Your task to perform on an android device: turn smart compose on in the gmail app Image 0: 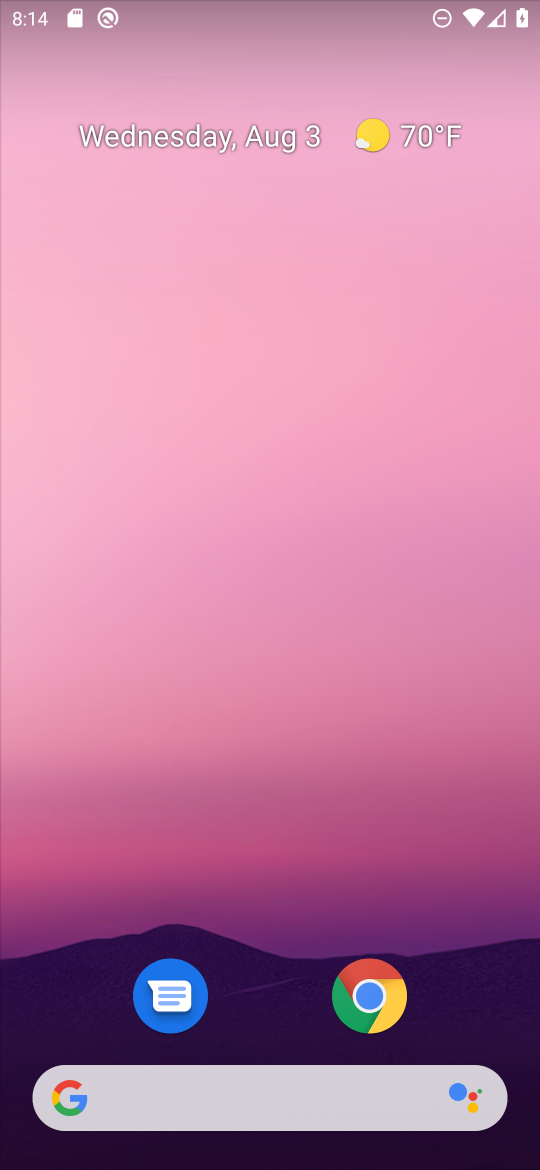
Step 0: drag from (287, 925) to (402, 14)
Your task to perform on an android device: turn smart compose on in the gmail app Image 1: 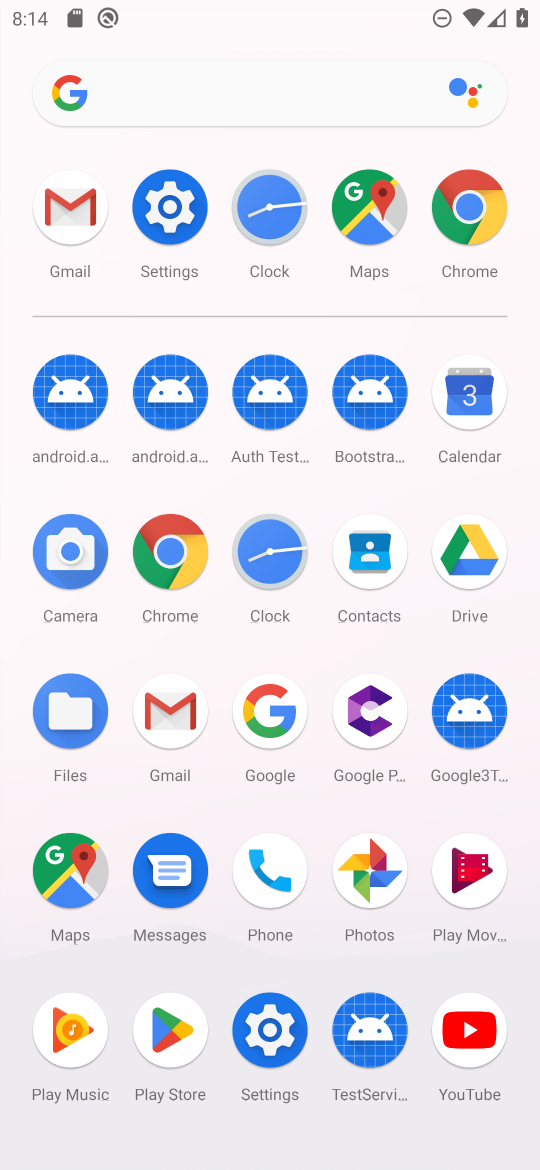
Step 1: click (73, 207)
Your task to perform on an android device: turn smart compose on in the gmail app Image 2: 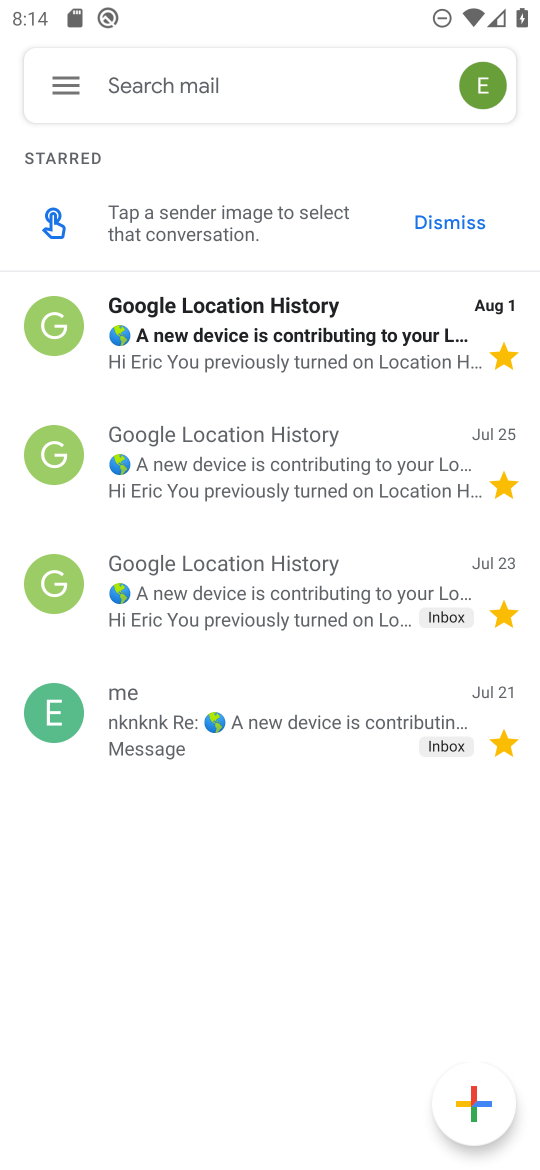
Step 2: click (67, 79)
Your task to perform on an android device: turn smart compose on in the gmail app Image 3: 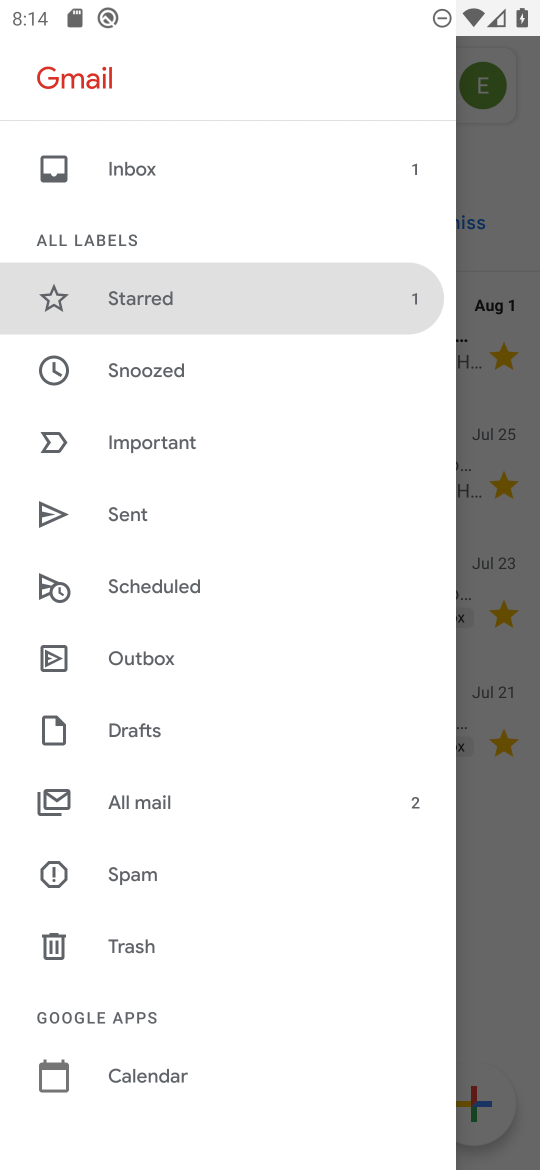
Step 3: drag from (243, 707) to (301, 220)
Your task to perform on an android device: turn smart compose on in the gmail app Image 4: 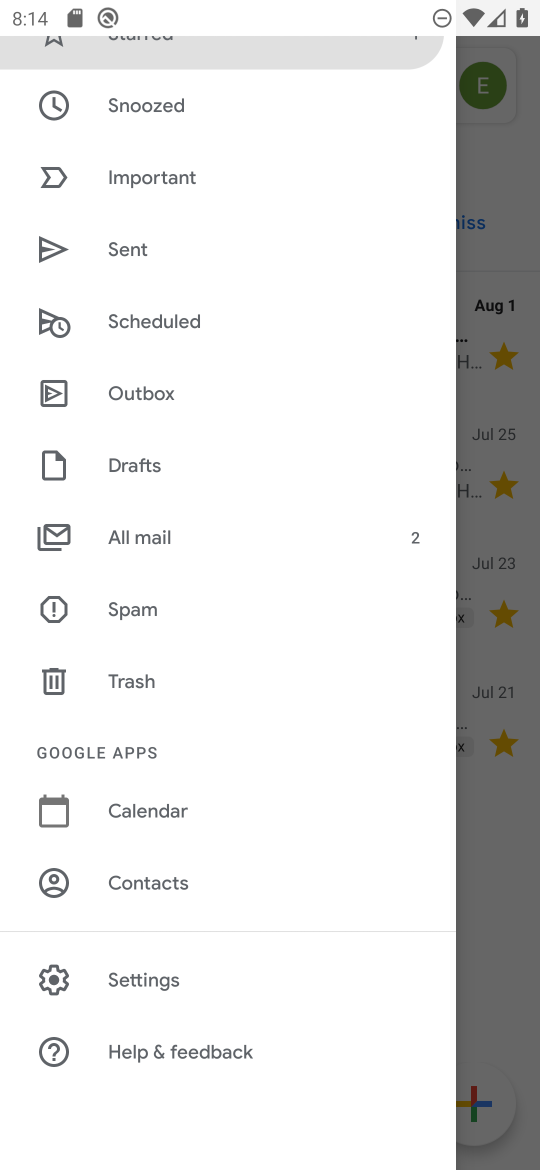
Step 4: click (166, 979)
Your task to perform on an android device: turn smart compose on in the gmail app Image 5: 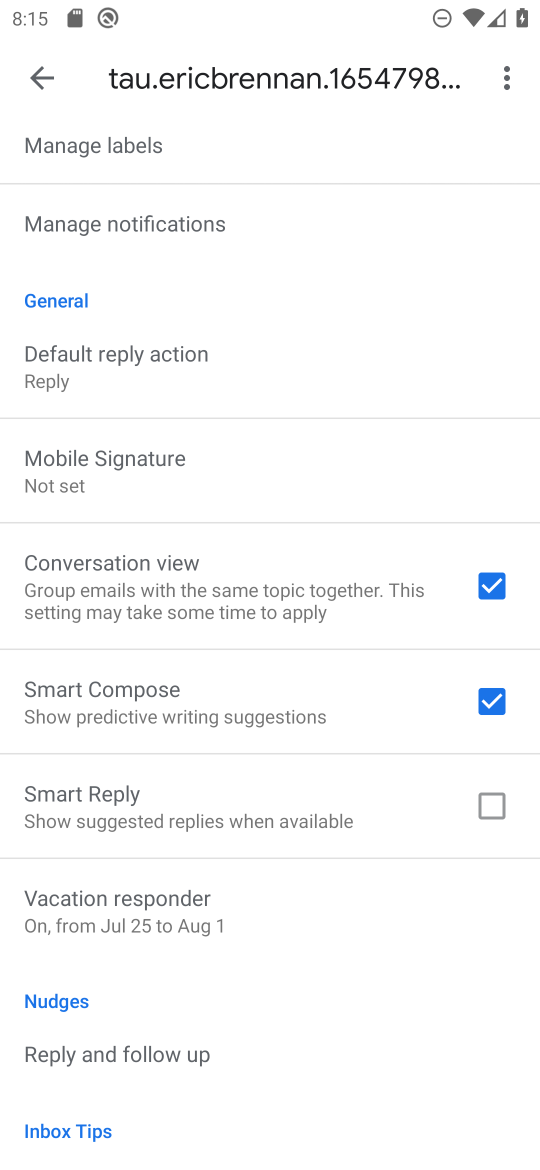
Step 5: task complete